Your task to perform on an android device: Open ESPN.com Image 0: 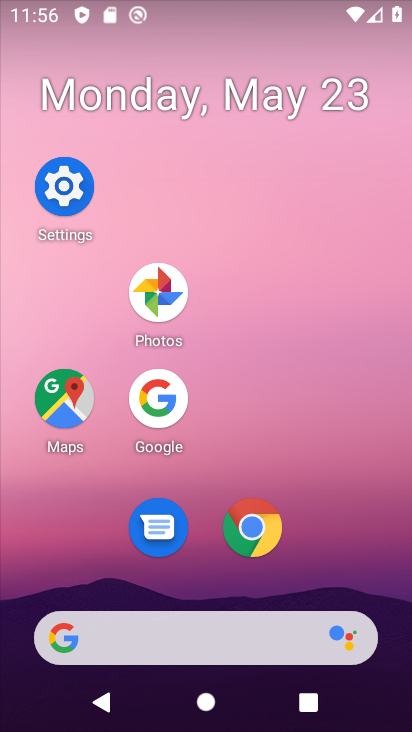
Step 0: click (261, 539)
Your task to perform on an android device: Open ESPN.com Image 1: 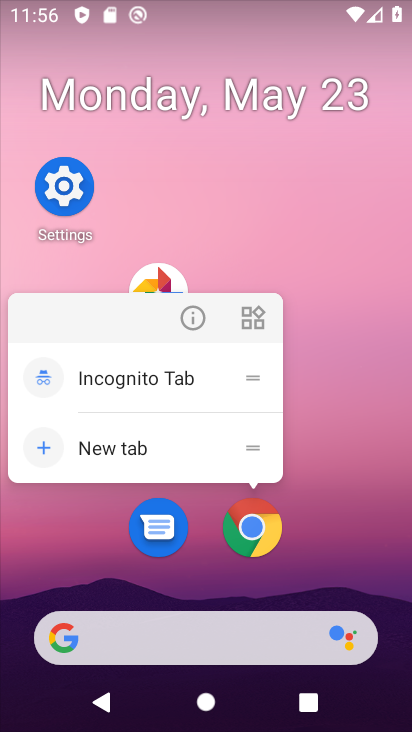
Step 1: click (268, 545)
Your task to perform on an android device: Open ESPN.com Image 2: 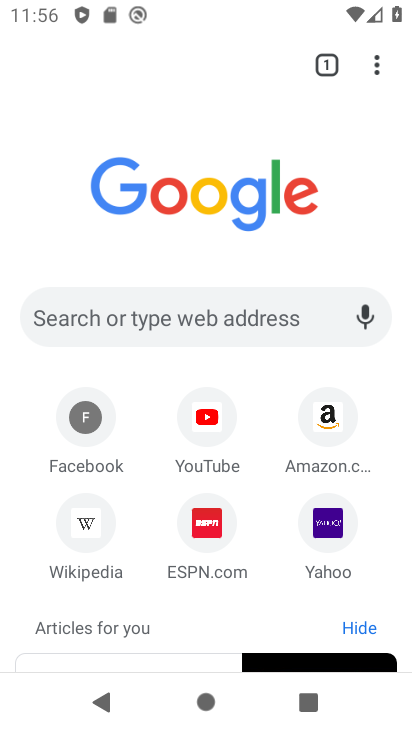
Step 2: click (222, 510)
Your task to perform on an android device: Open ESPN.com Image 3: 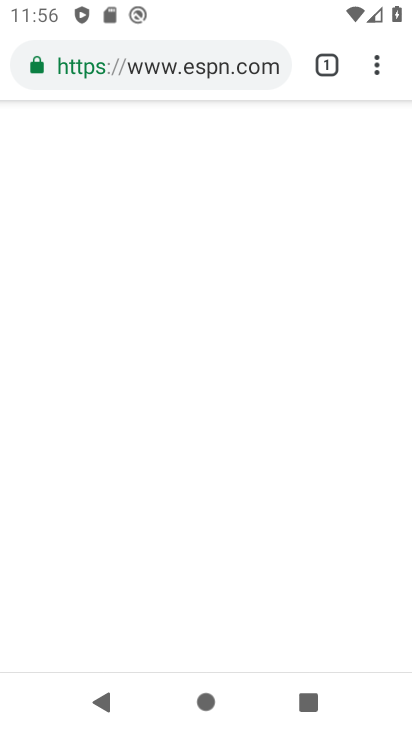
Step 3: task complete